Your task to perform on an android device: Go to sound settings Image 0: 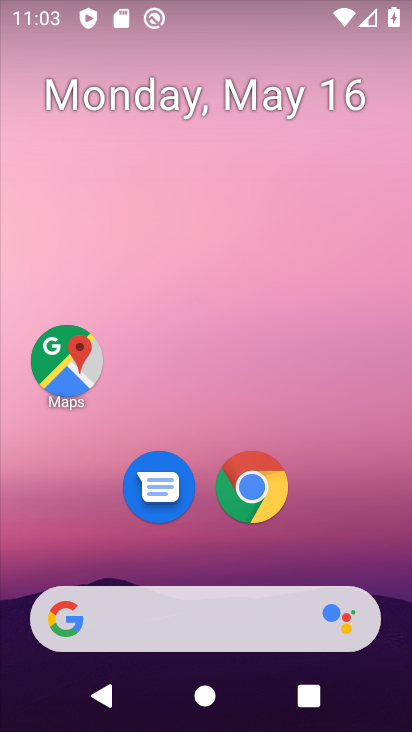
Step 0: drag from (60, 573) to (282, 75)
Your task to perform on an android device: Go to sound settings Image 1: 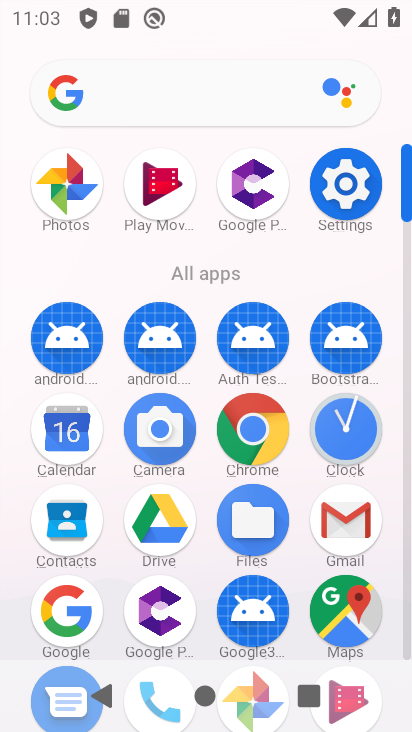
Step 1: click (340, 170)
Your task to perform on an android device: Go to sound settings Image 2: 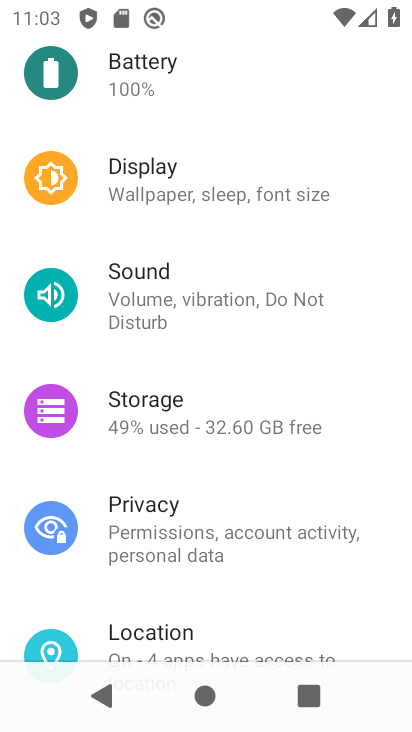
Step 2: click (163, 291)
Your task to perform on an android device: Go to sound settings Image 3: 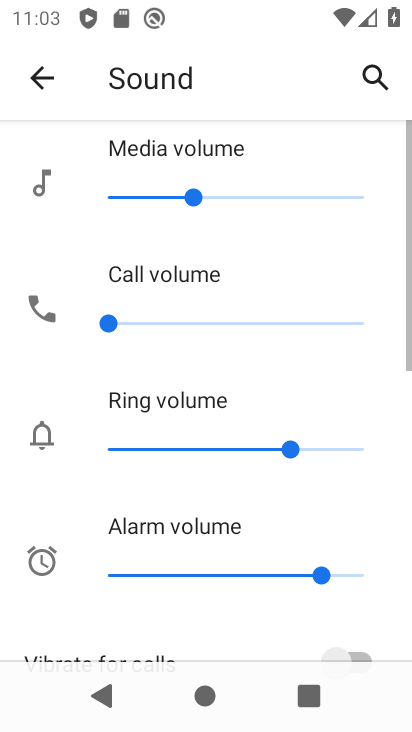
Step 3: task complete